Your task to perform on an android device: How much does the Samsung TV cost? Image 0: 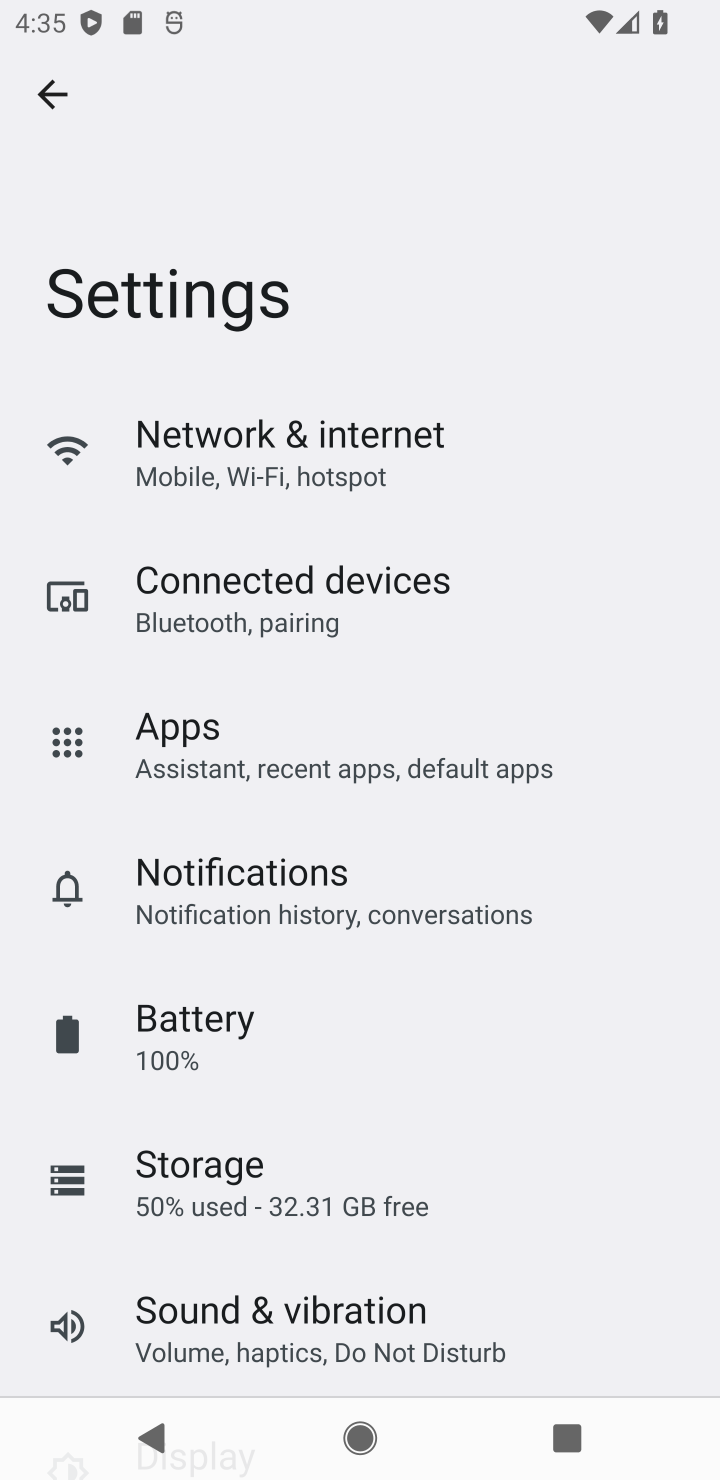
Step 0: press home button
Your task to perform on an android device: How much does the Samsung TV cost? Image 1: 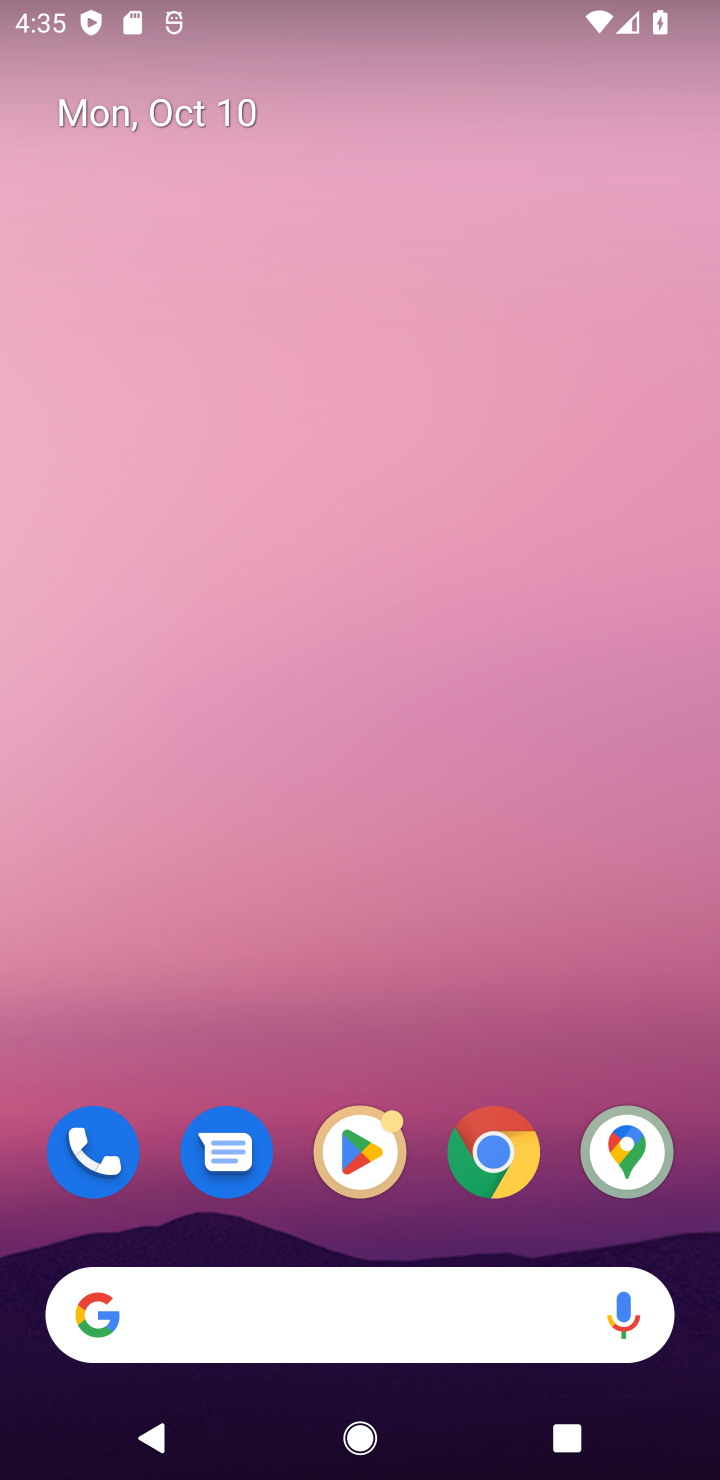
Step 1: click (505, 1152)
Your task to perform on an android device: How much does the Samsung TV cost? Image 2: 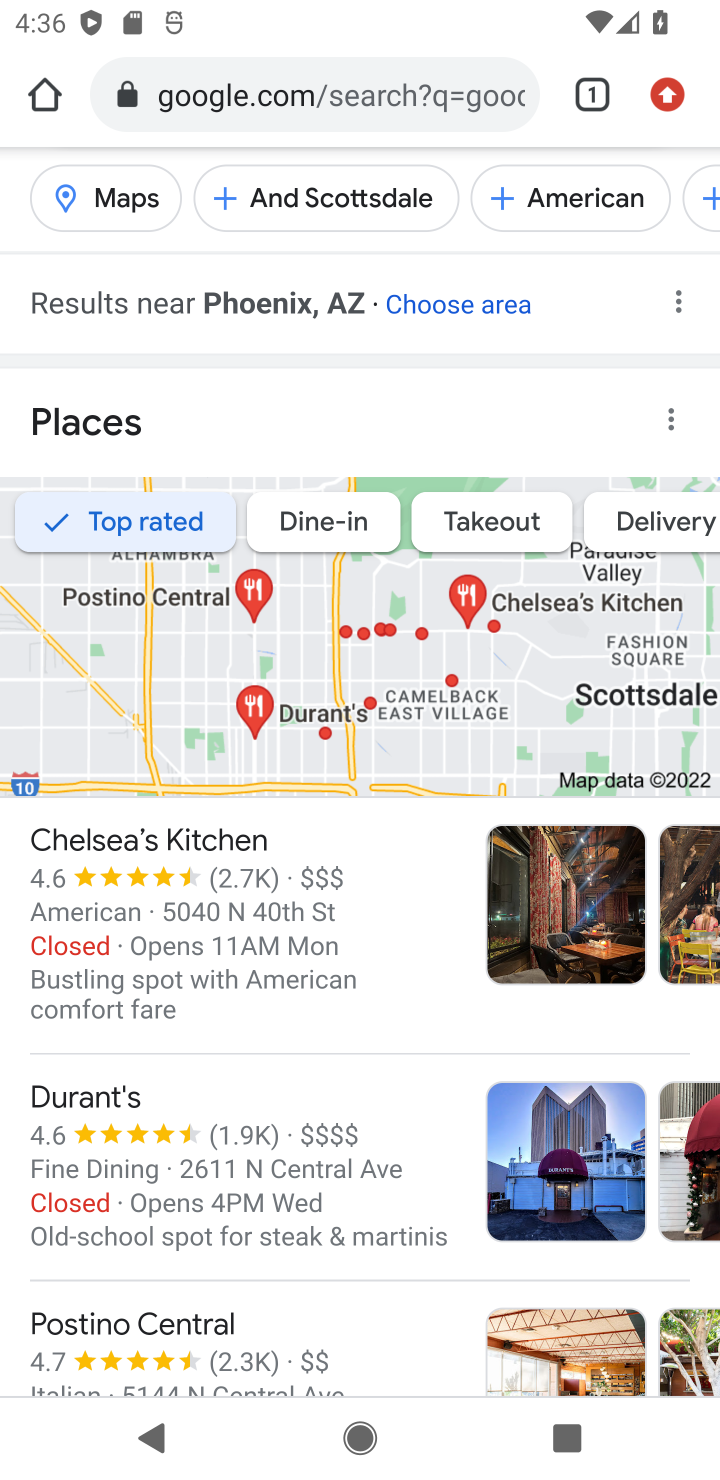
Step 2: click (421, 97)
Your task to perform on an android device: How much does the Samsung TV cost? Image 3: 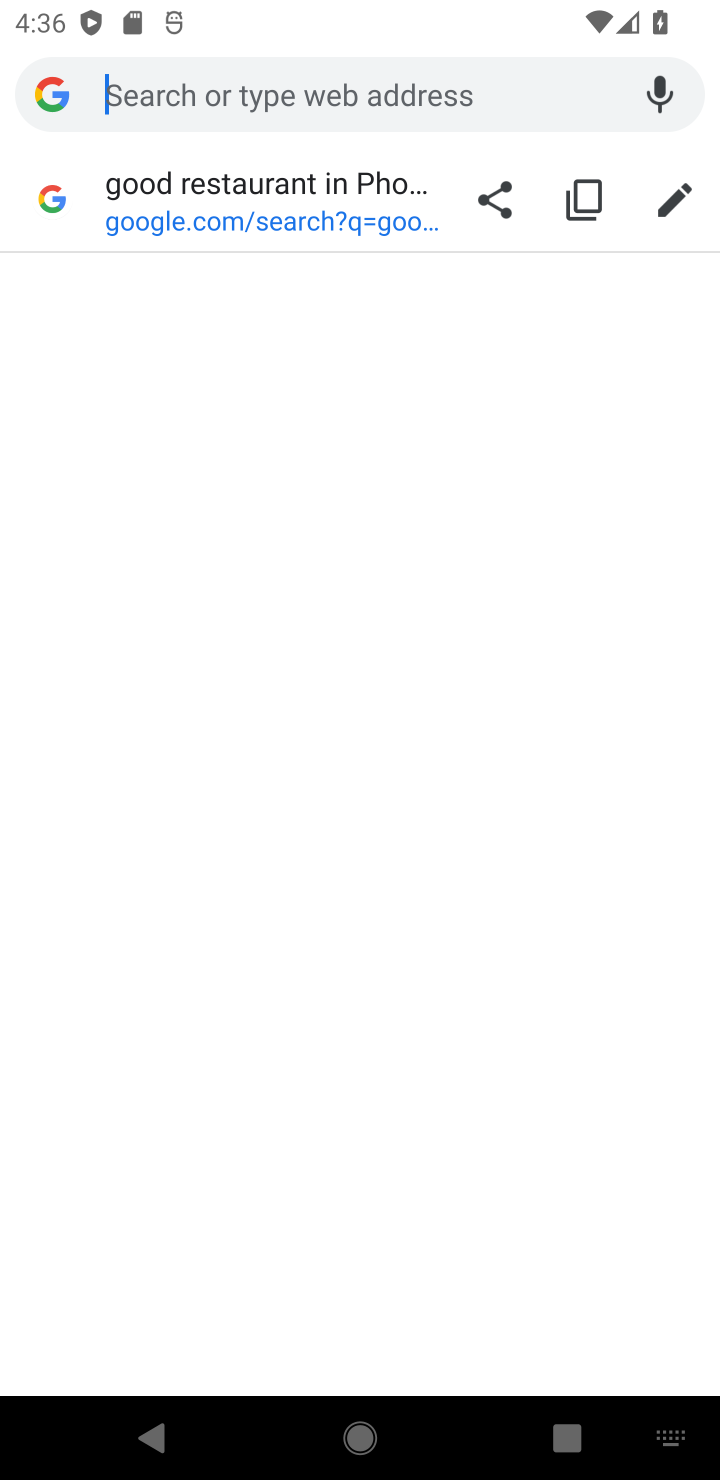
Step 3: type "Samsung TV cost"
Your task to perform on an android device: How much does the Samsung TV cost? Image 4: 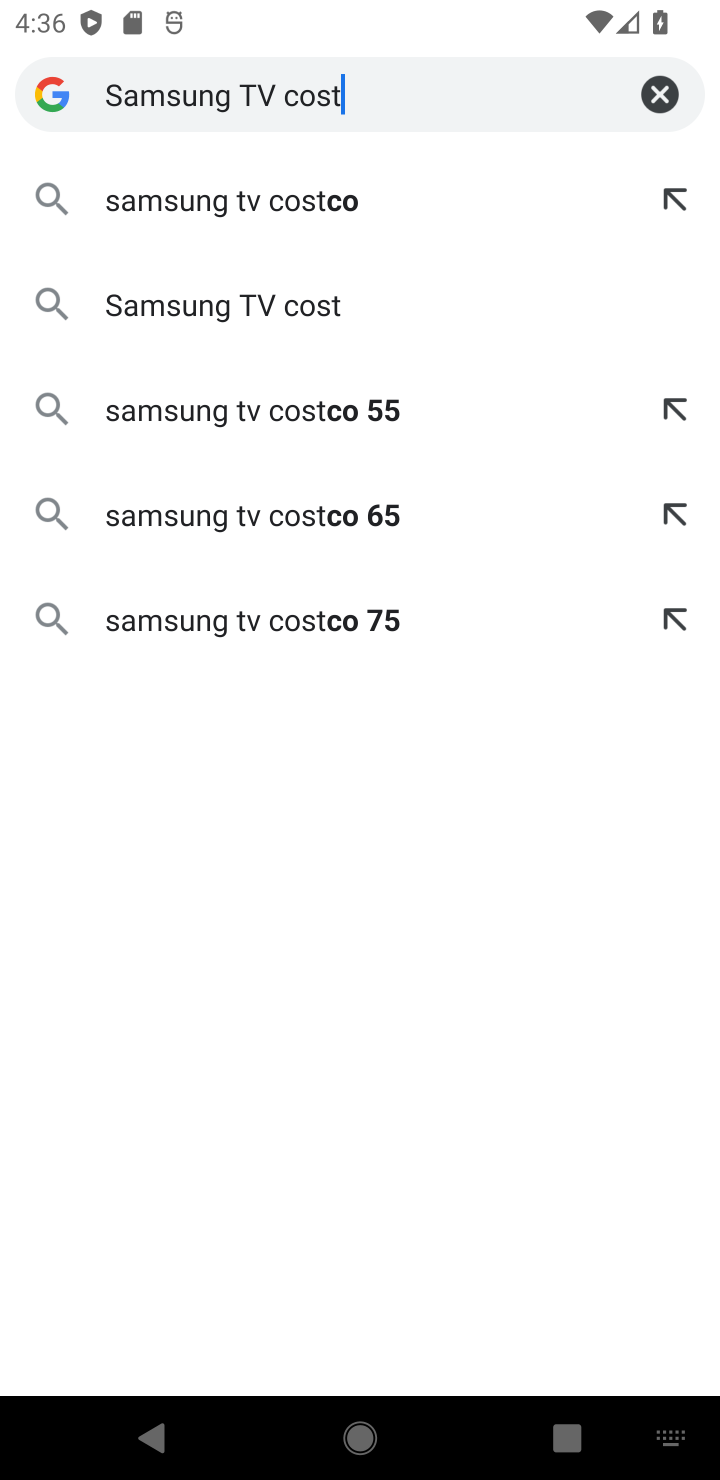
Step 4: click (247, 295)
Your task to perform on an android device: How much does the Samsung TV cost? Image 5: 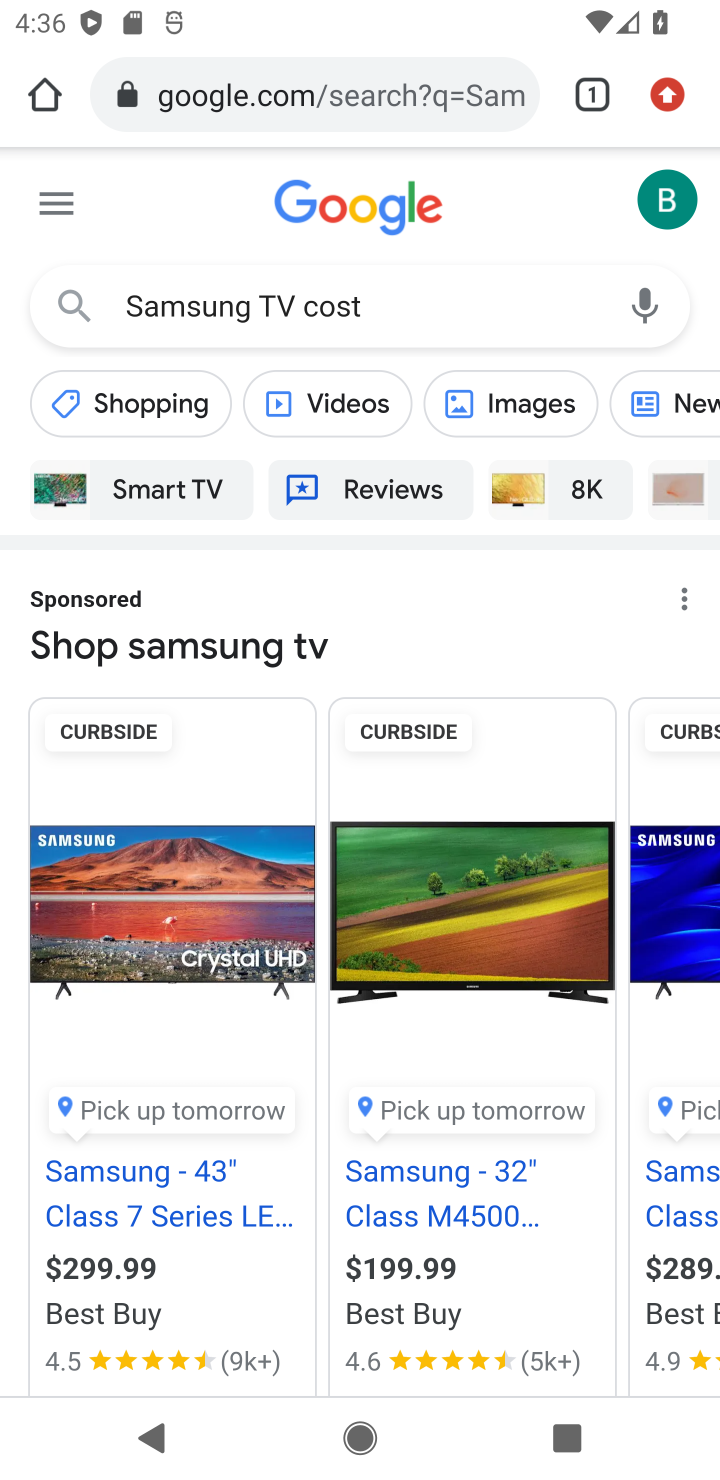
Step 5: task complete